Your task to perform on an android device: change text size in settings app Image 0: 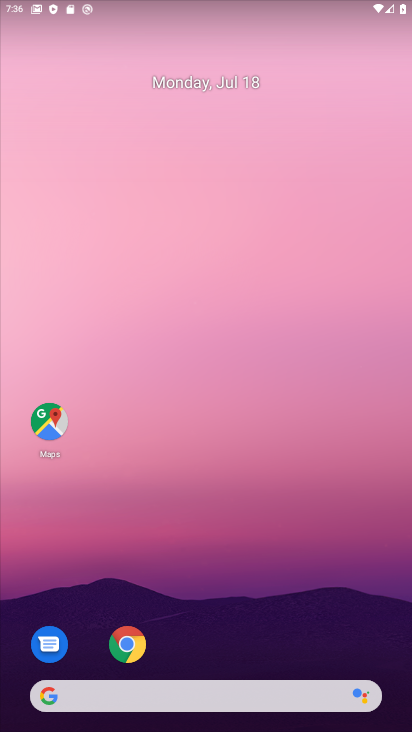
Step 0: drag from (191, 691) to (310, 262)
Your task to perform on an android device: change text size in settings app Image 1: 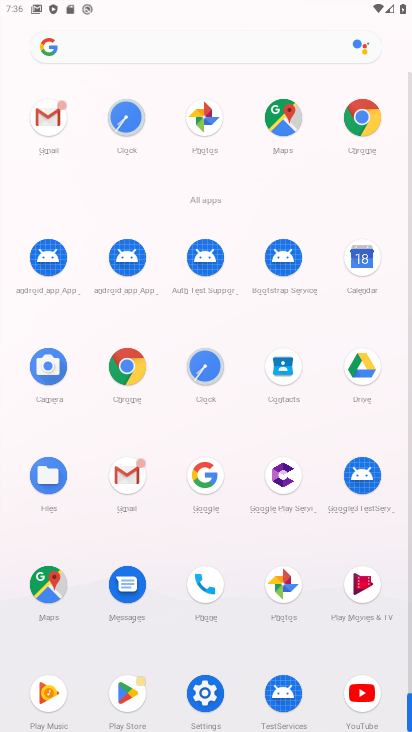
Step 1: click (209, 697)
Your task to perform on an android device: change text size in settings app Image 2: 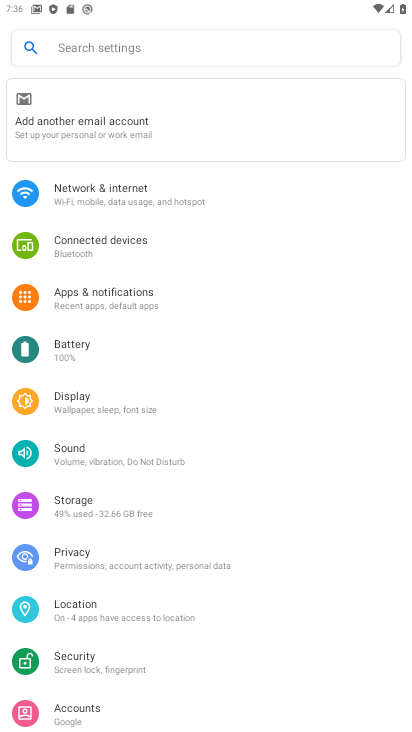
Step 2: click (103, 405)
Your task to perform on an android device: change text size in settings app Image 3: 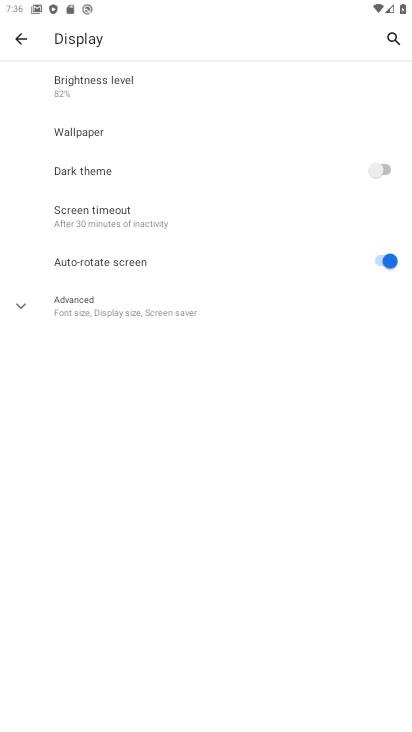
Step 3: click (74, 304)
Your task to perform on an android device: change text size in settings app Image 4: 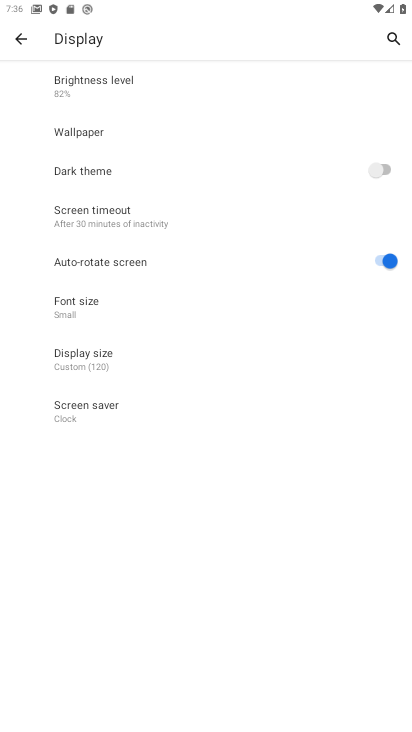
Step 4: click (79, 309)
Your task to perform on an android device: change text size in settings app Image 5: 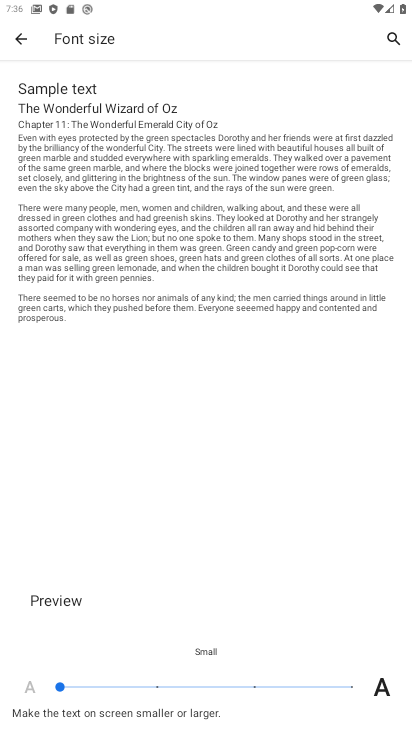
Step 5: click (254, 688)
Your task to perform on an android device: change text size in settings app Image 6: 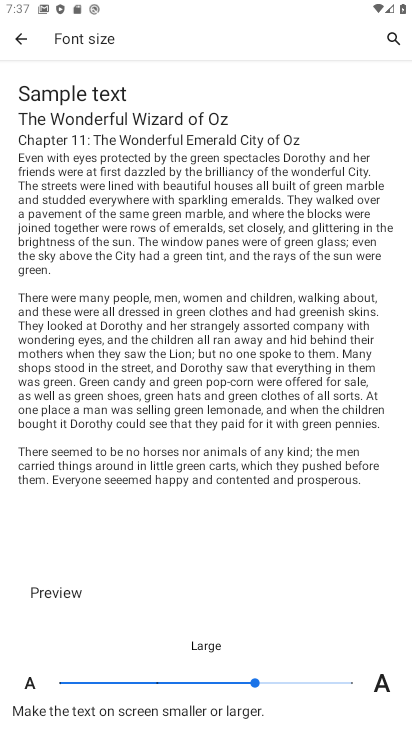
Step 6: task complete